Your task to perform on an android device: read, delete, or share a saved page in the chrome app Image 0: 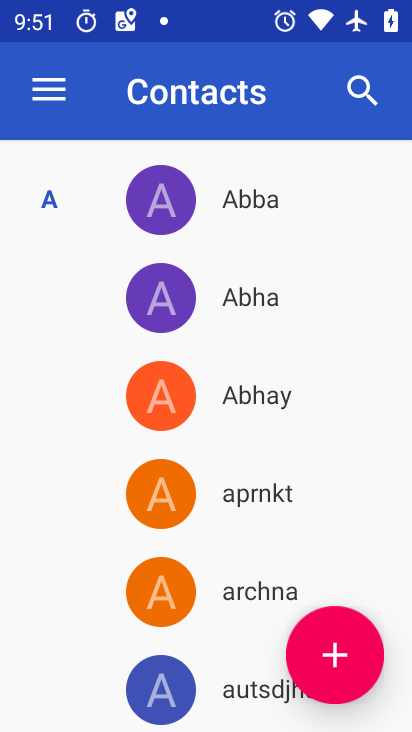
Step 0: press home button
Your task to perform on an android device: read, delete, or share a saved page in the chrome app Image 1: 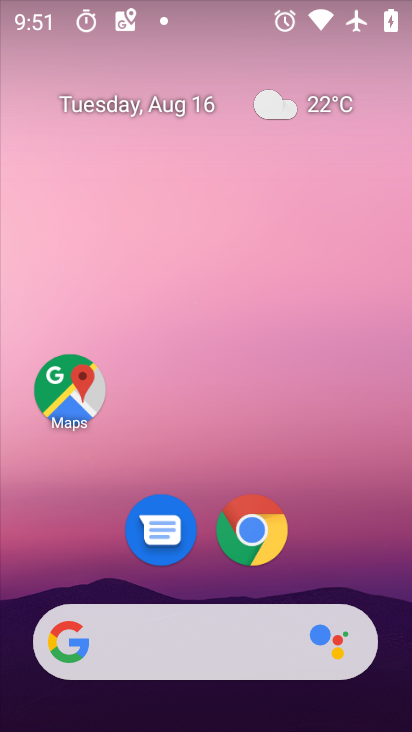
Step 1: drag from (328, 522) to (373, 45)
Your task to perform on an android device: read, delete, or share a saved page in the chrome app Image 2: 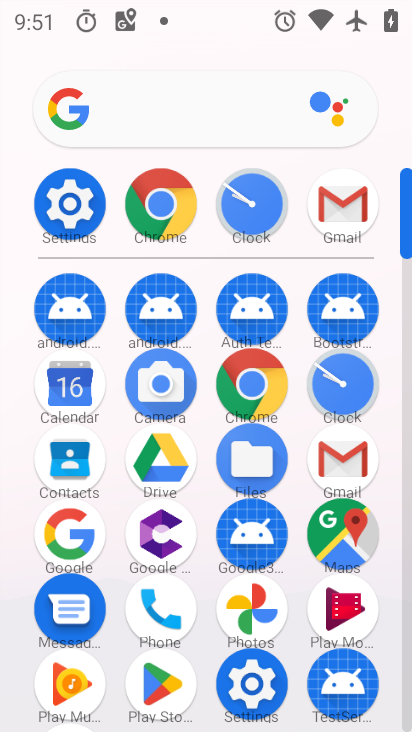
Step 2: click (252, 389)
Your task to perform on an android device: read, delete, or share a saved page in the chrome app Image 3: 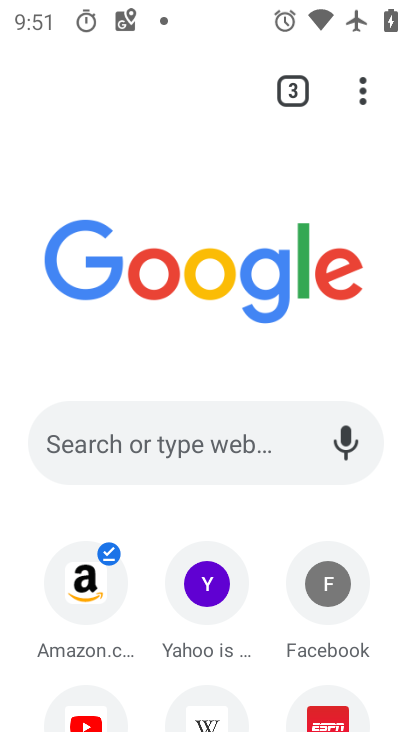
Step 3: drag from (373, 84) to (123, 597)
Your task to perform on an android device: read, delete, or share a saved page in the chrome app Image 4: 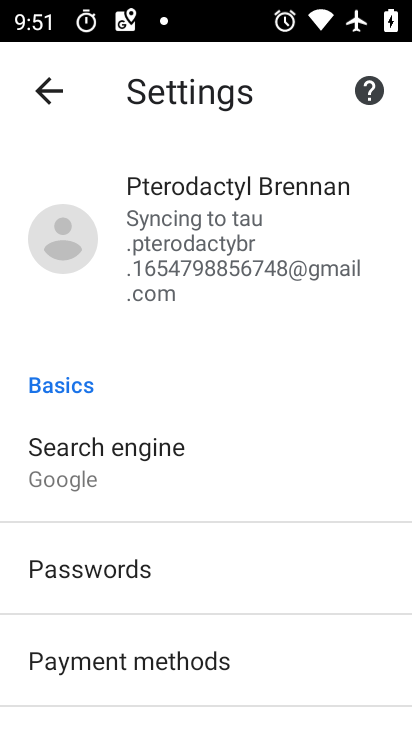
Step 4: click (58, 85)
Your task to perform on an android device: read, delete, or share a saved page in the chrome app Image 5: 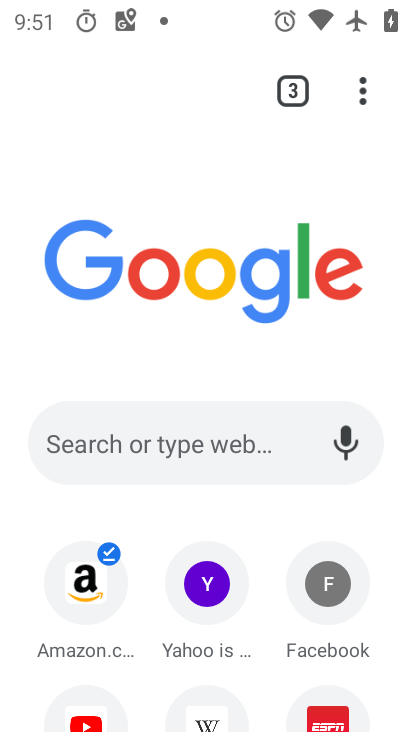
Step 5: task complete